Your task to perform on an android device: change notifications settings Image 0: 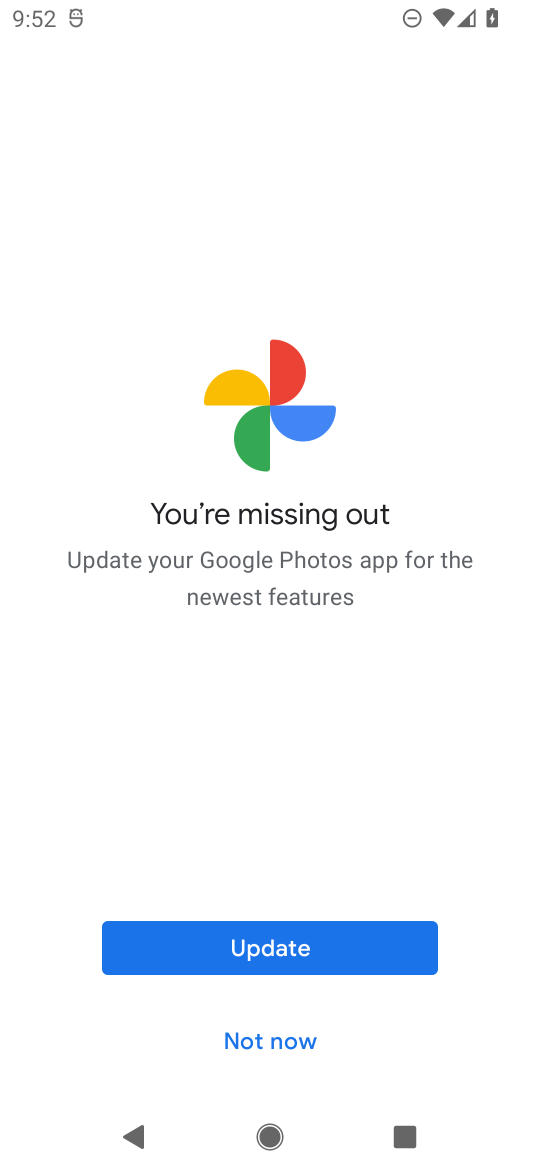
Step 0: press home button
Your task to perform on an android device: change notifications settings Image 1: 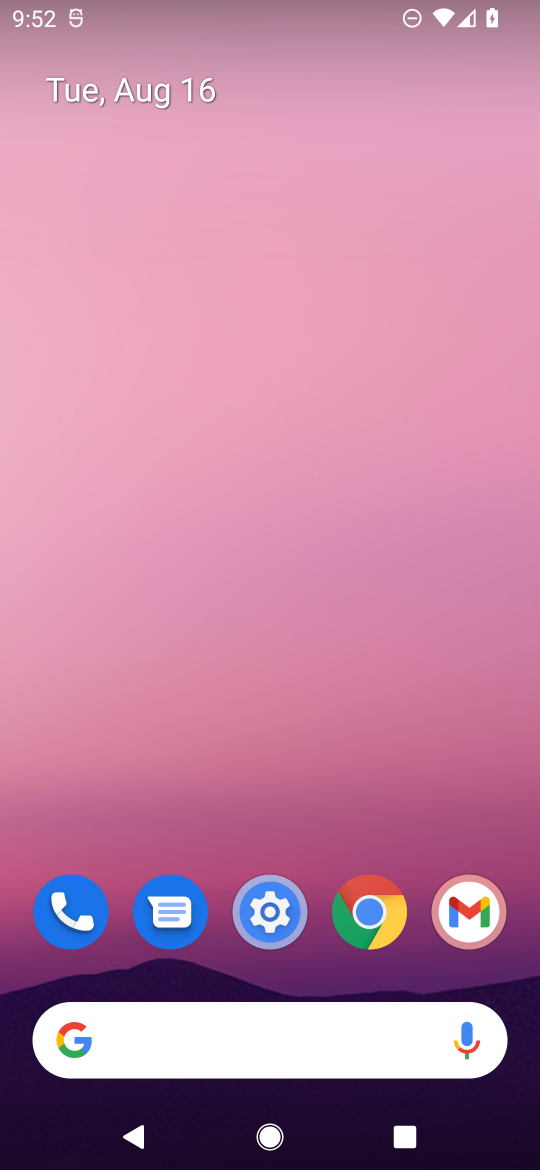
Step 1: click (305, 871)
Your task to perform on an android device: change notifications settings Image 2: 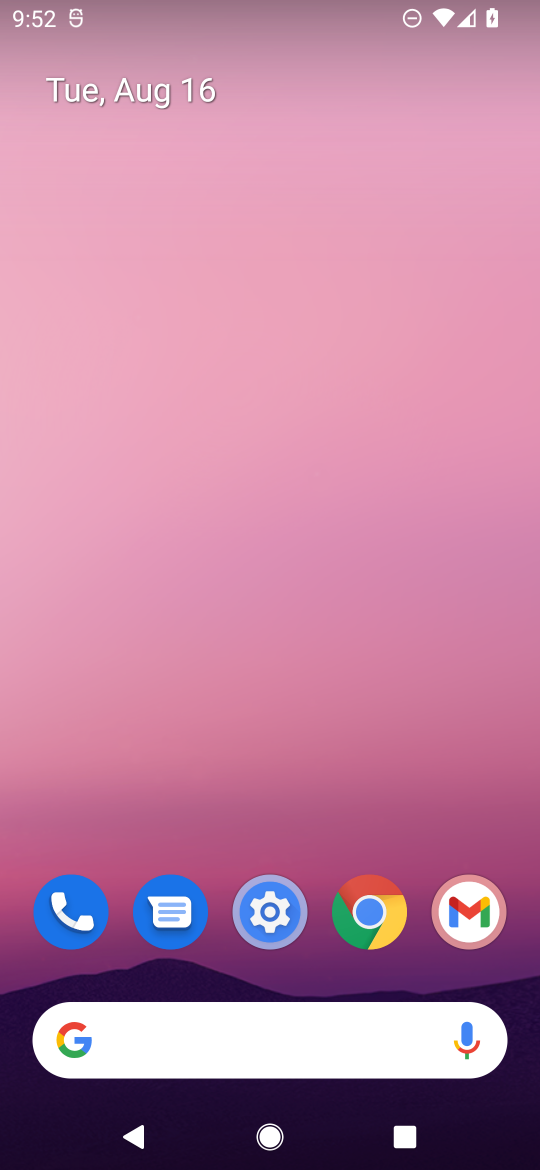
Step 2: click (287, 890)
Your task to perform on an android device: change notifications settings Image 3: 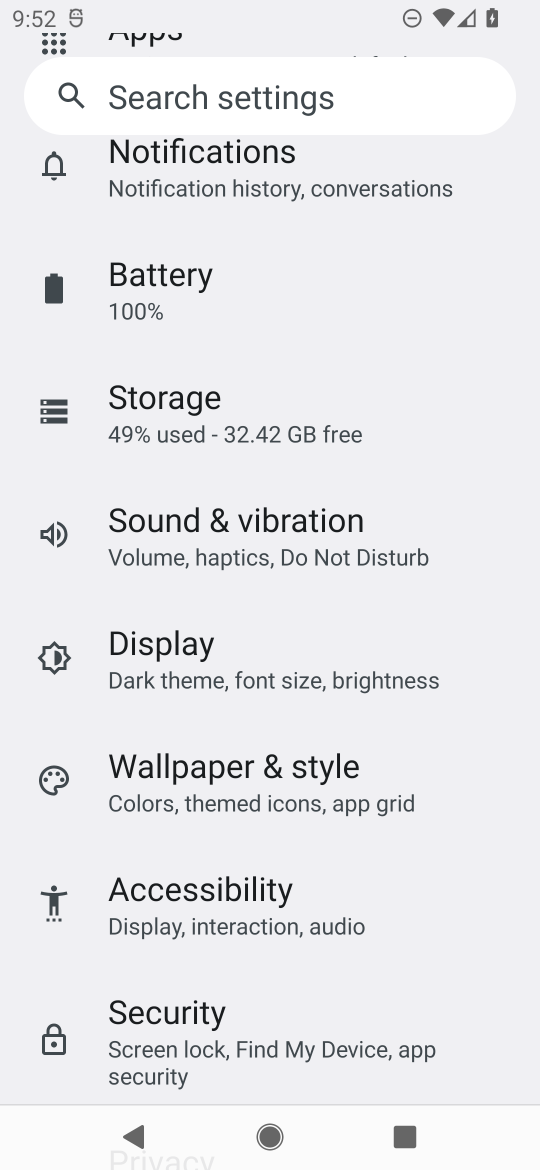
Step 3: click (168, 163)
Your task to perform on an android device: change notifications settings Image 4: 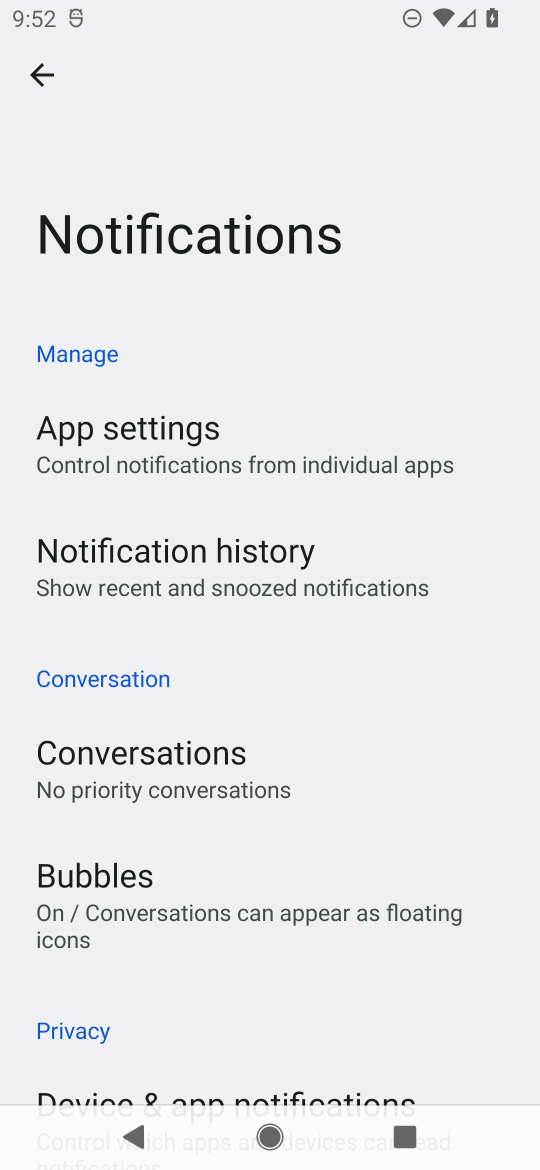
Step 4: click (168, 163)
Your task to perform on an android device: change notifications settings Image 5: 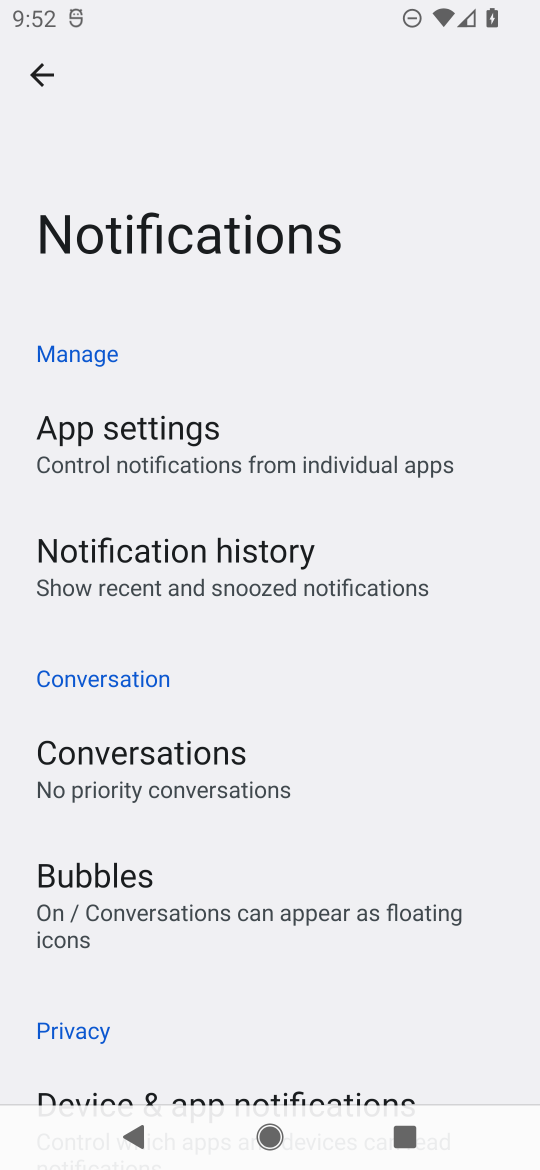
Step 5: drag from (209, 1058) to (208, 413)
Your task to perform on an android device: change notifications settings Image 6: 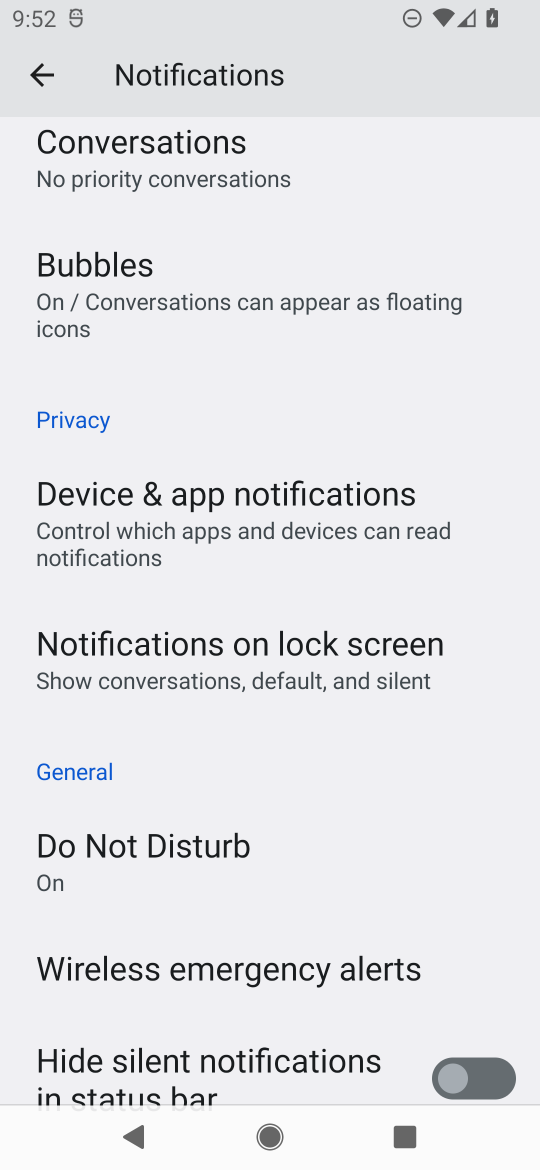
Step 6: drag from (291, 1029) to (348, 391)
Your task to perform on an android device: change notifications settings Image 7: 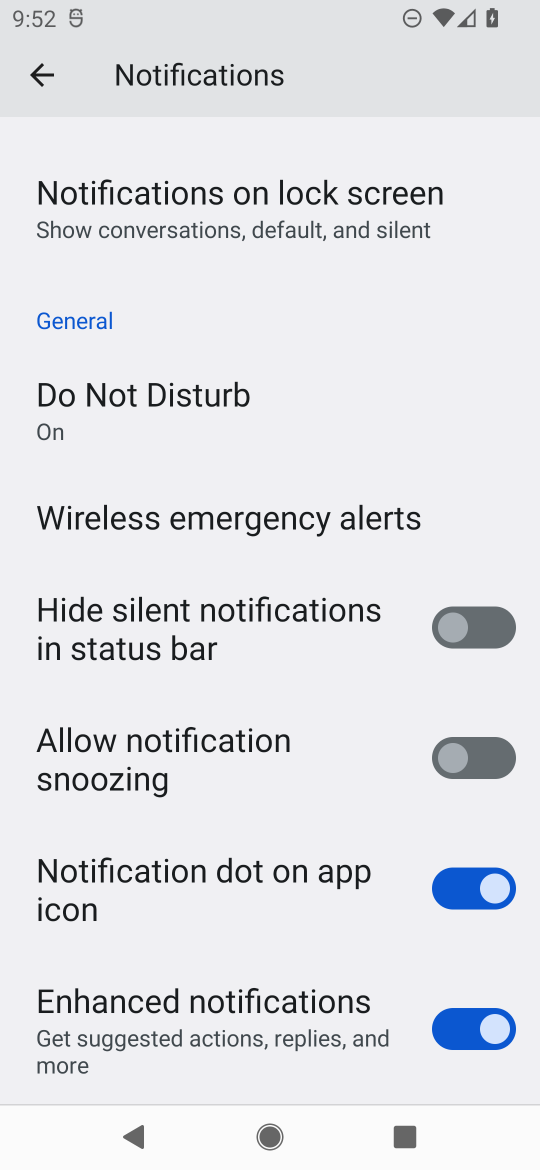
Step 7: click (473, 615)
Your task to perform on an android device: change notifications settings Image 8: 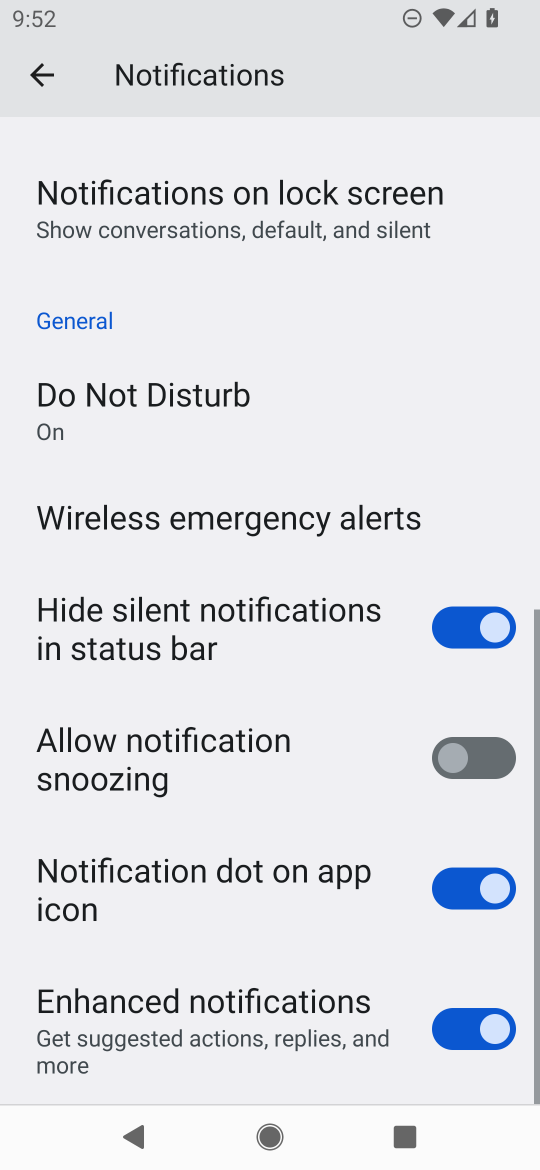
Step 8: click (484, 898)
Your task to perform on an android device: change notifications settings Image 9: 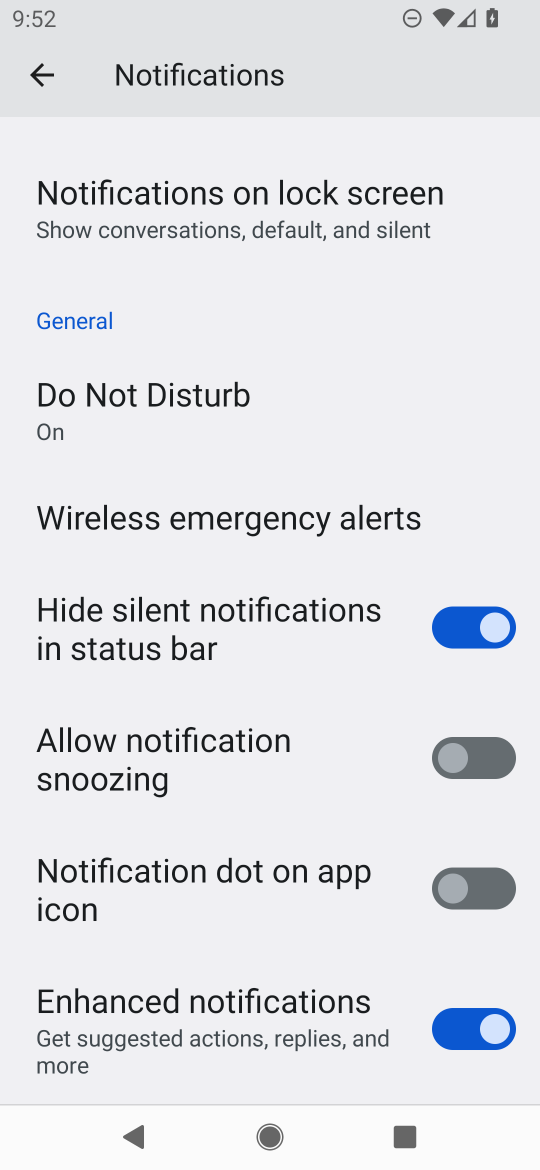
Step 9: task complete